Your task to perform on an android device: turn on airplane mode Image 0: 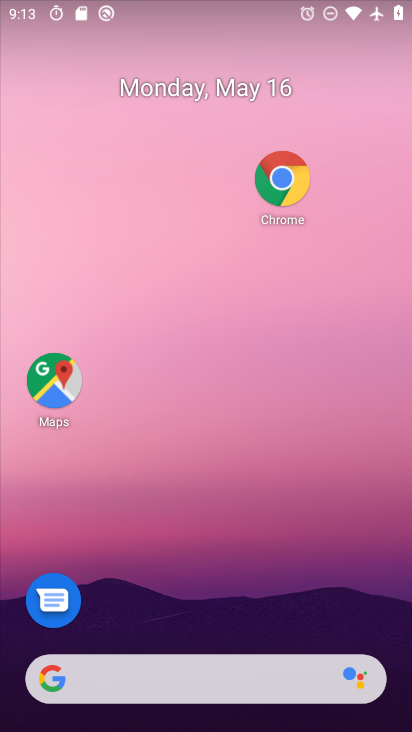
Step 0: drag from (163, 680) to (314, 121)
Your task to perform on an android device: turn on airplane mode Image 1: 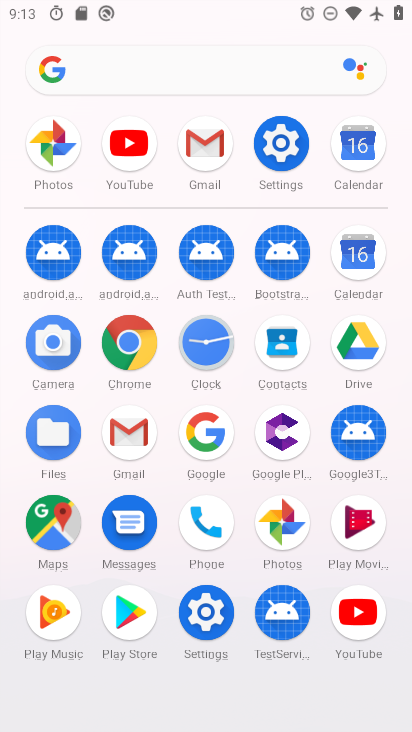
Step 1: click (293, 133)
Your task to perform on an android device: turn on airplane mode Image 2: 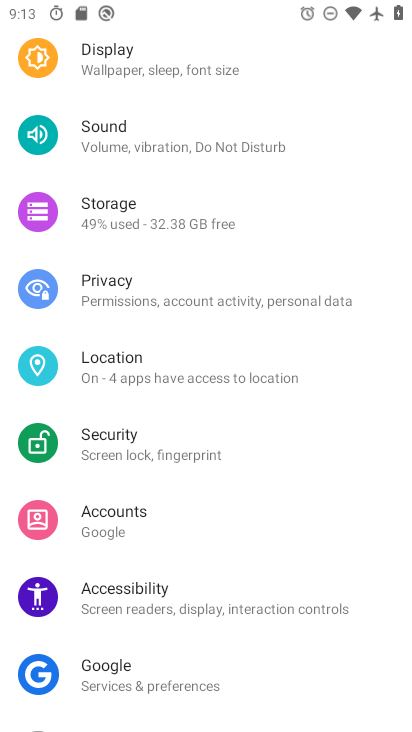
Step 2: drag from (320, 125) to (247, 663)
Your task to perform on an android device: turn on airplane mode Image 3: 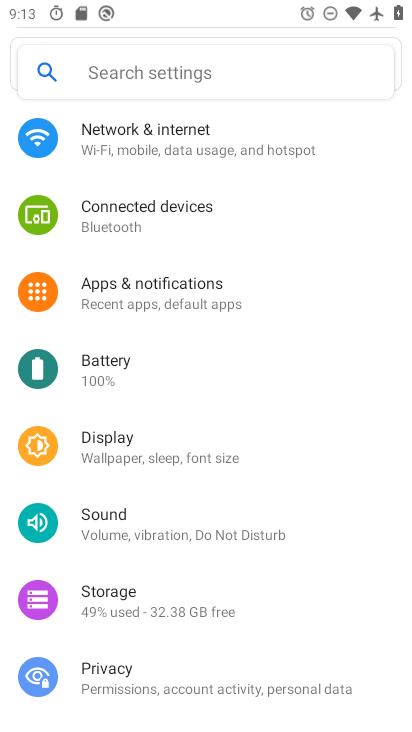
Step 3: drag from (254, 104) to (206, 461)
Your task to perform on an android device: turn on airplane mode Image 4: 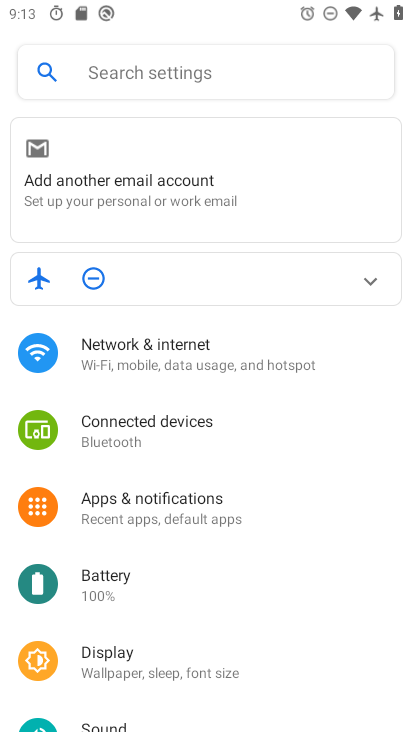
Step 4: click (153, 355)
Your task to perform on an android device: turn on airplane mode Image 5: 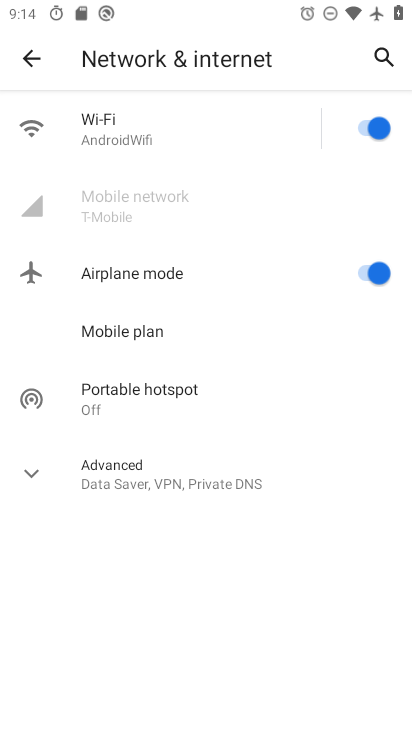
Step 5: task complete